Your task to perform on an android device: change notifications settings Image 0: 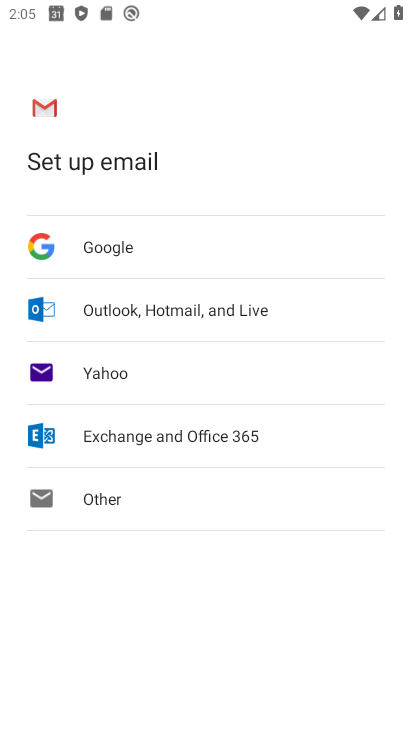
Step 0: press back button
Your task to perform on an android device: change notifications settings Image 1: 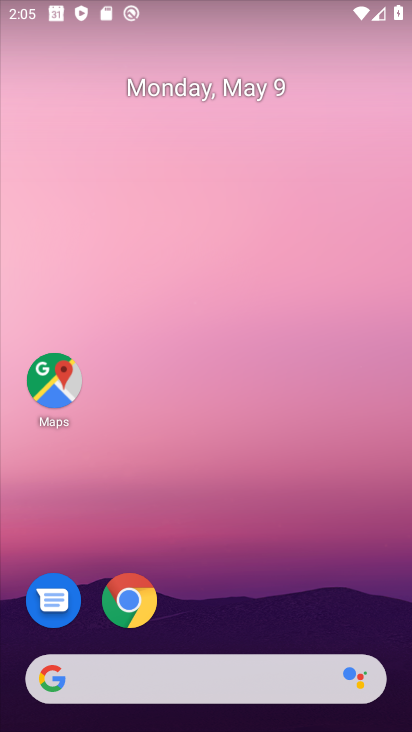
Step 1: drag from (300, 498) to (271, 4)
Your task to perform on an android device: change notifications settings Image 2: 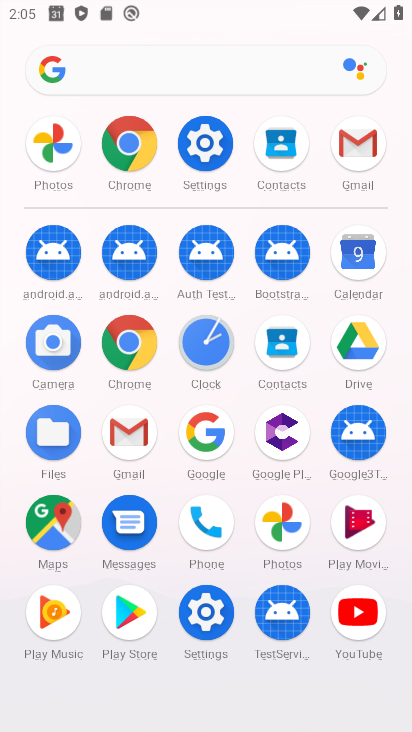
Step 2: click (203, 142)
Your task to perform on an android device: change notifications settings Image 3: 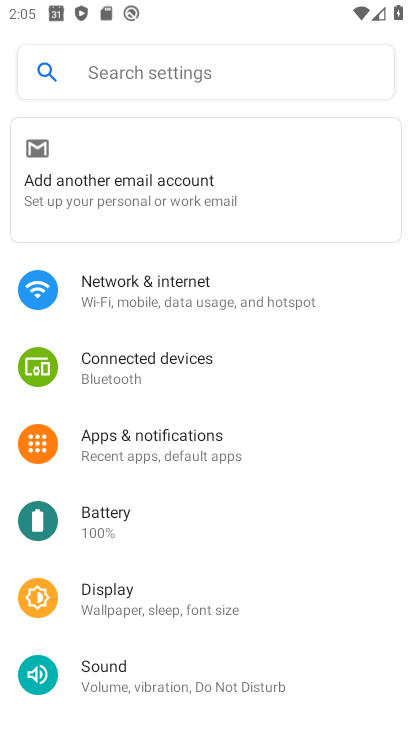
Step 3: drag from (268, 517) to (304, 230)
Your task to perform on an android device: change notifications settings Image 4: 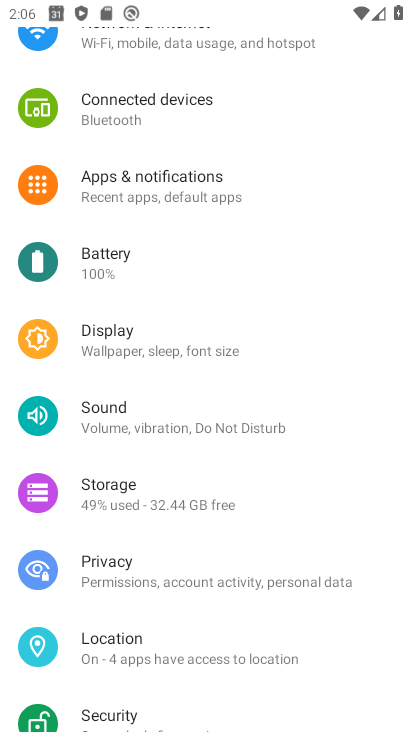
Step 4: click (211, 184)
Your task to perform on an android device: change notifications settings Image 5: 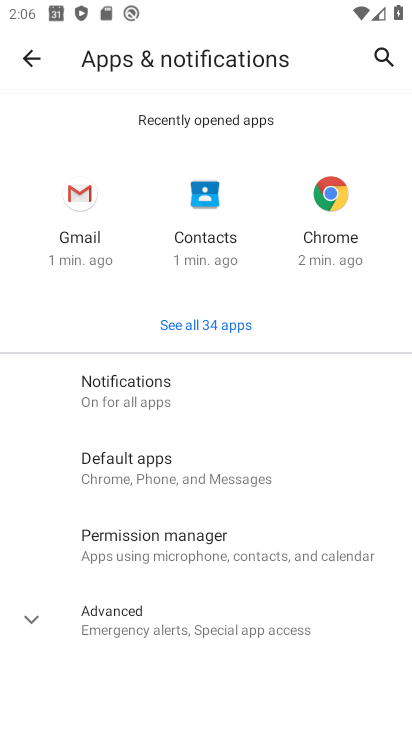
Step 5: click (42, 619)
Your task to perform on an android device: change notifications settings Image 6: 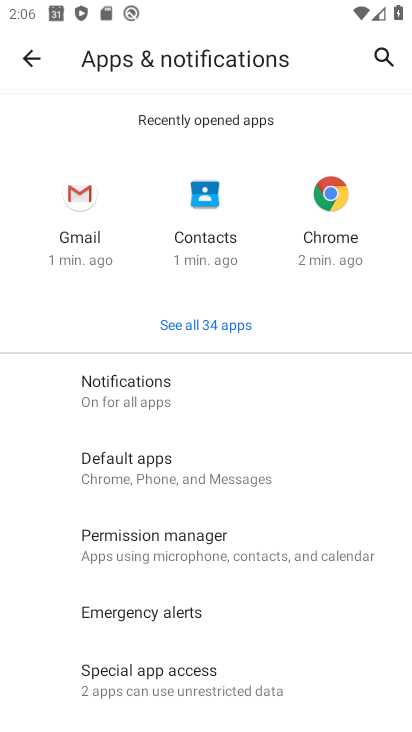
Step 6: drag from (339, 595) to (332, 315)
Your task to perform on an android device: change notifications settings Image 7: 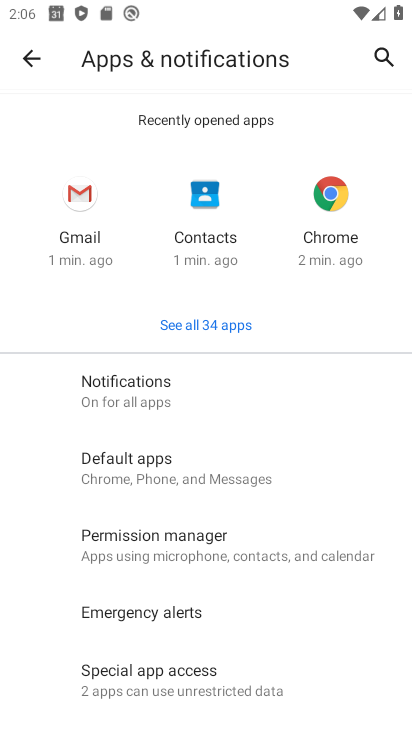
Step 7: click (207, 387)
Your task to perform on an android device: change notifications settings Image 8: 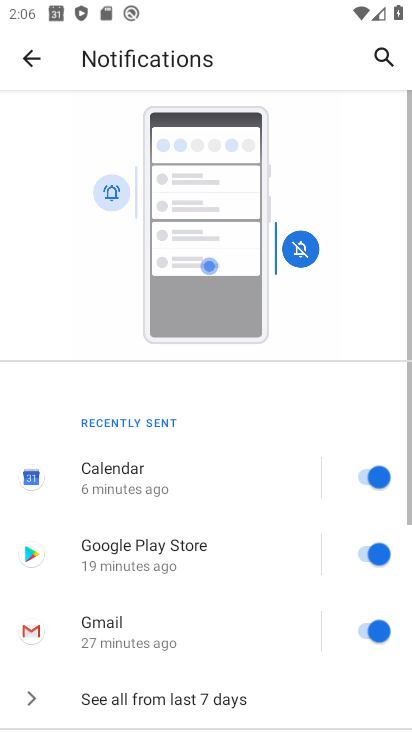
Step 8: drag from (230, 601) to (296, 128)
Your task to perform on an android device: change notifications settings Image 9: 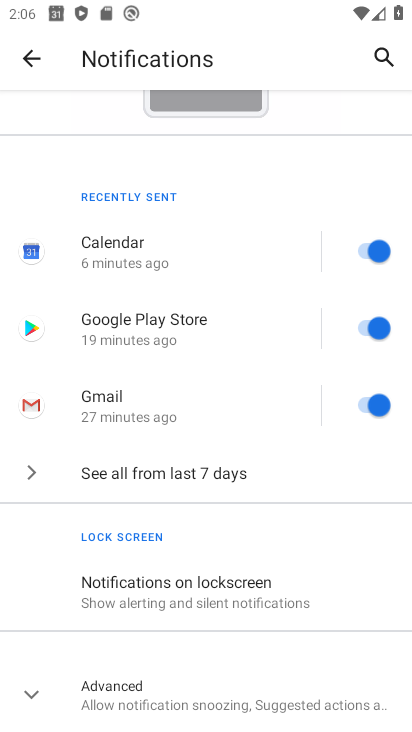
Step 9: click (59, 688)
Your task to perform on an android device: change notifications settings Image 10: 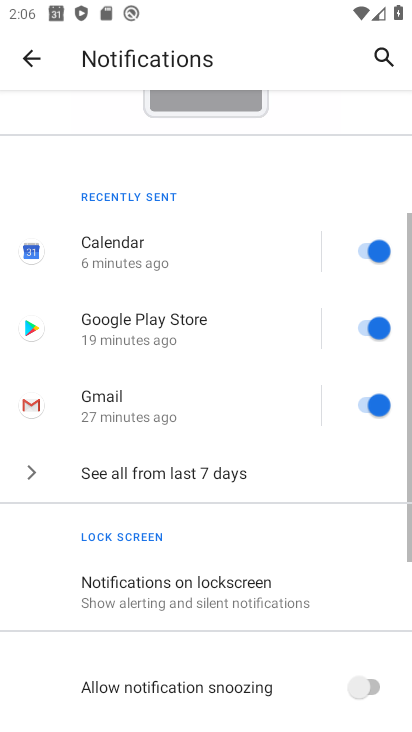
Step 10: drag from (235, 634) to (280, 230)
Your task to perform on an android device: change notifications settings Image 11: 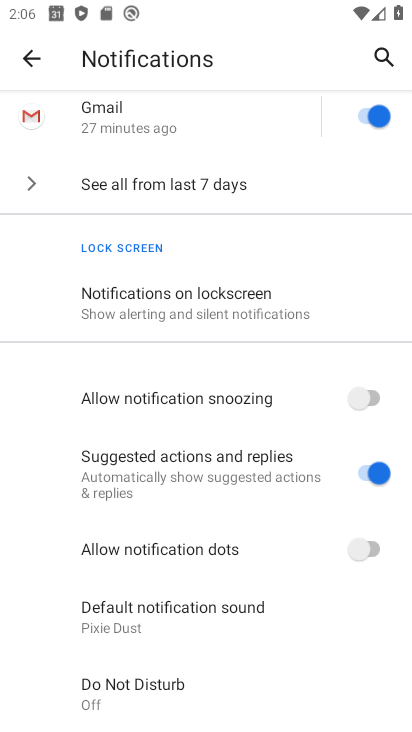
Step 11: click (207, 313)
Your task to perform on an android device: change notifications settings Image 12: 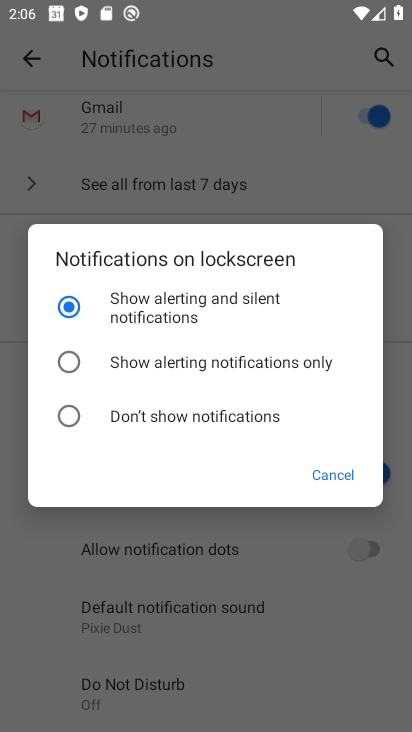
Step 12: click (139, 362)
Your task to perform on an android device: change notifications settings Image 13: 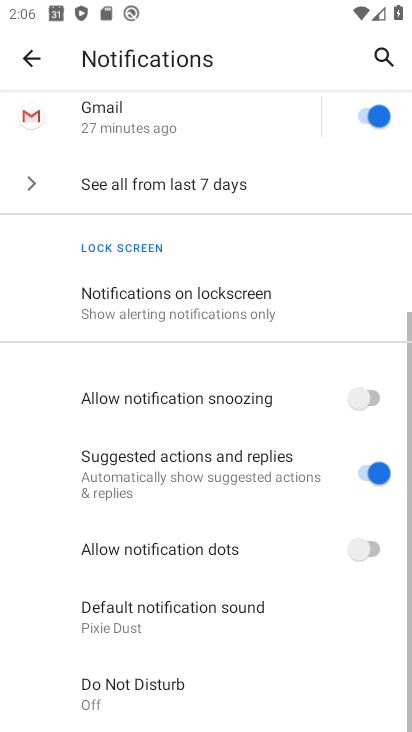
Step 13: task complete